Your task to perform on an android device: add a contact Image 0: 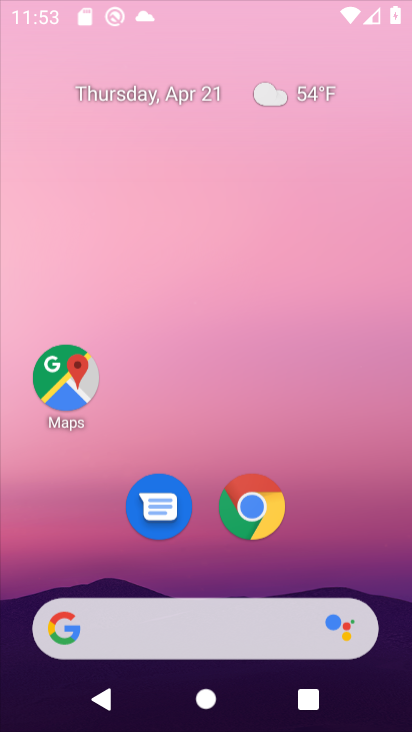
Step 0: click (154, 239)
Your task to perform on an android device: add a contact Image 1: 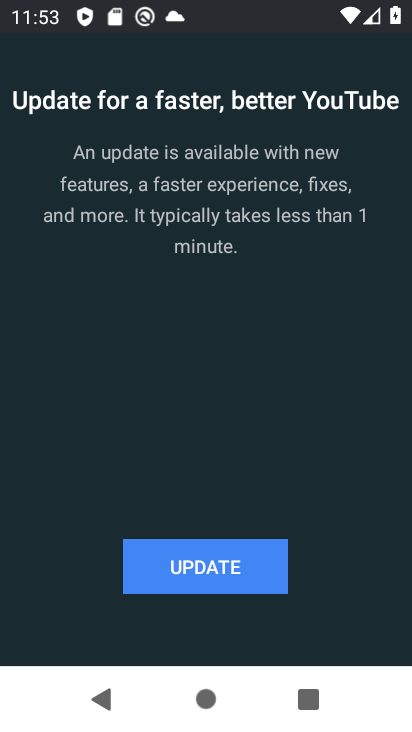
Step 1: press home button
Your task to perform on an android device: add a contact Image 2: 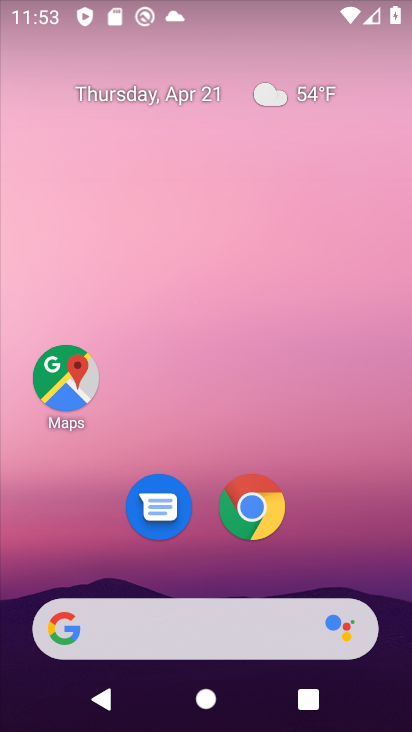
Step 2: drag from (182, 632) to (145, 28)
Your task to perform on an android device: add a contact Image 3: 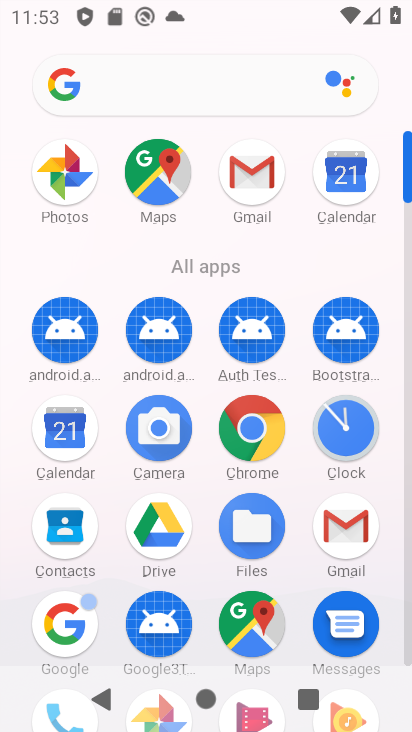
Step 3: click (68, 511)
Your task to perform on an android device: add a contact Image 4: 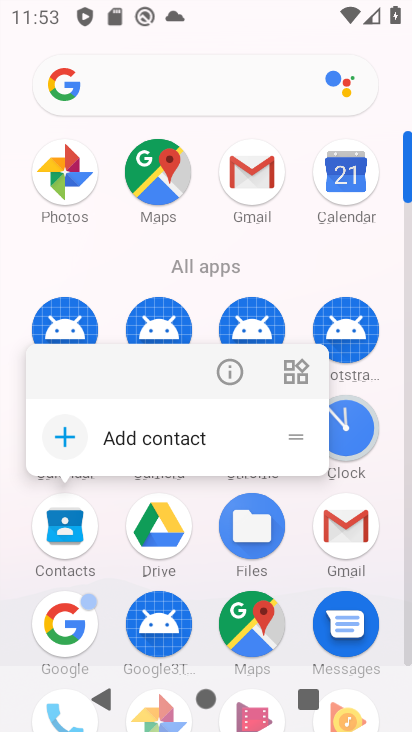
Step 4: click (55, 521)
Your task to perform on an android device: add a contact Image 5: 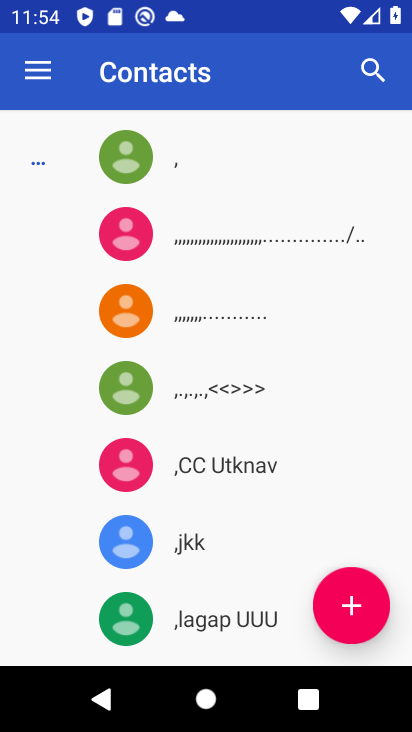
Step 5: click (341, 596)
Your task to perform on an android device: add a contact Image 6: 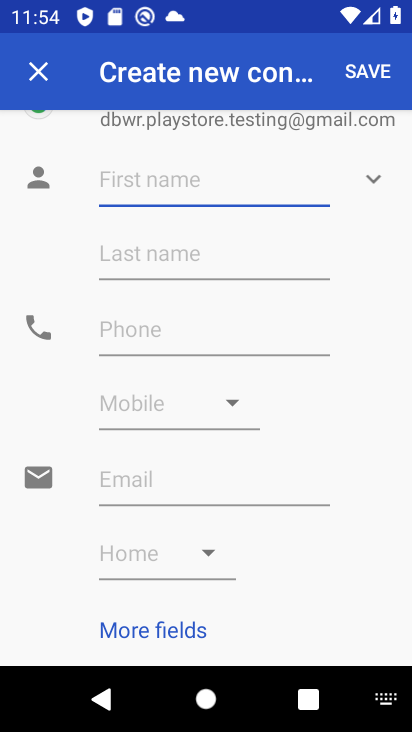
Step 6: type "fgfnvb"
Your task to perform on an android device: add a contact Image 7: 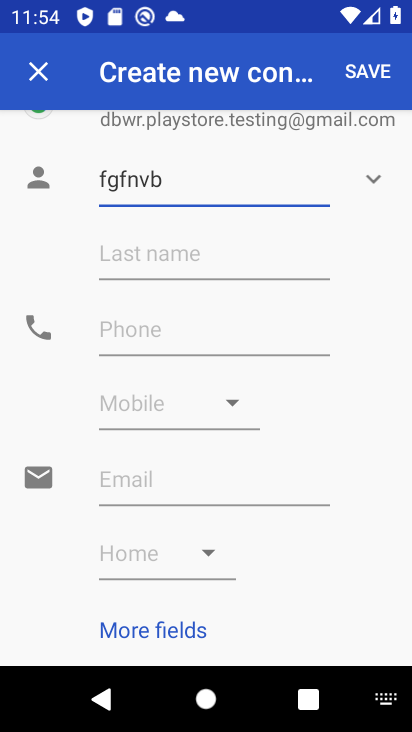
Step 7: click (127, 337)
Your task to perform on an android device: add a contact Image 8: 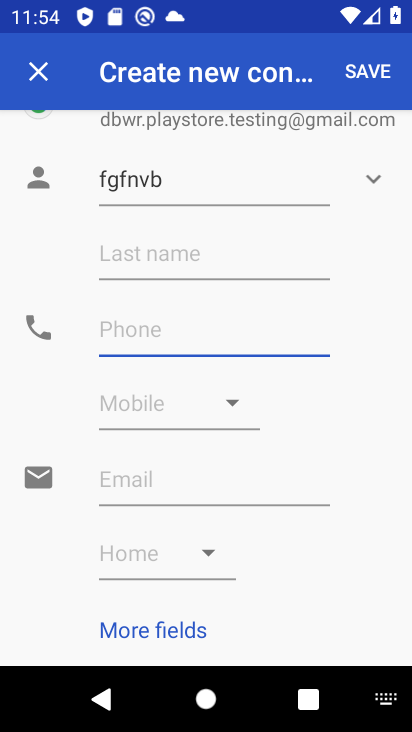
Step 8: type "878997890"
Your task to perform on an android device: add a contact Image 9: 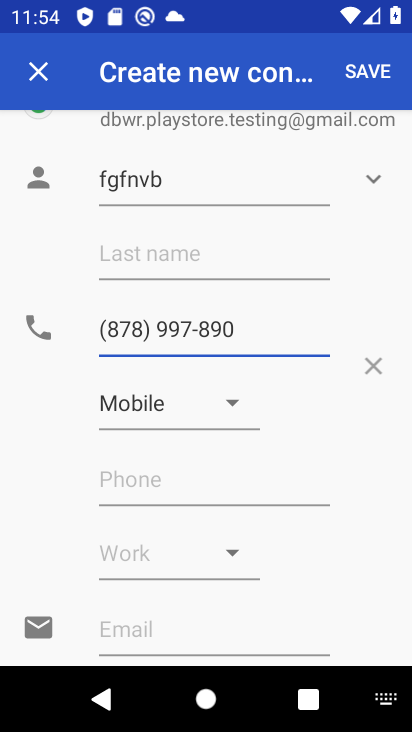
Step 9: click (351, 73)
Your task to perform on an android device: add a contact Image 10: 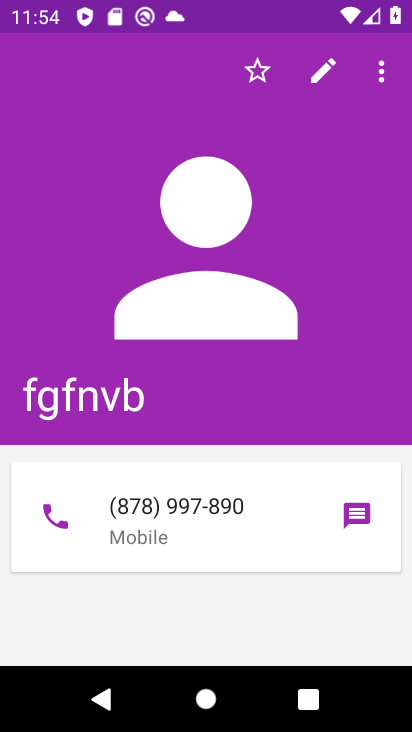
Step 10: task complete